Your task to perform on an android device: turn notification dots off Image 0: 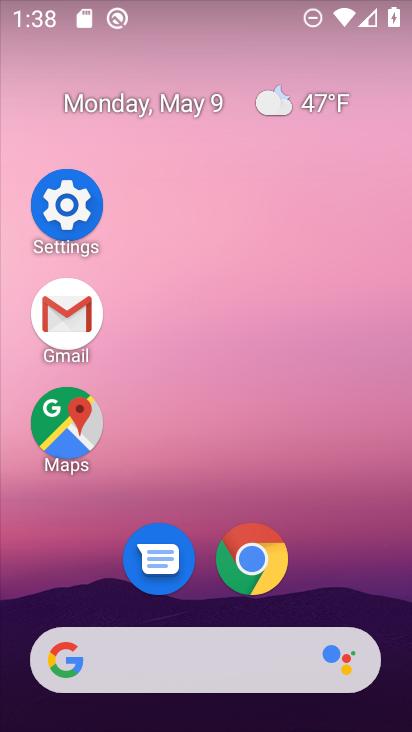
Step 0: click (51, 182)
Your task to perform on an android device: turn notification dots off Image 1: 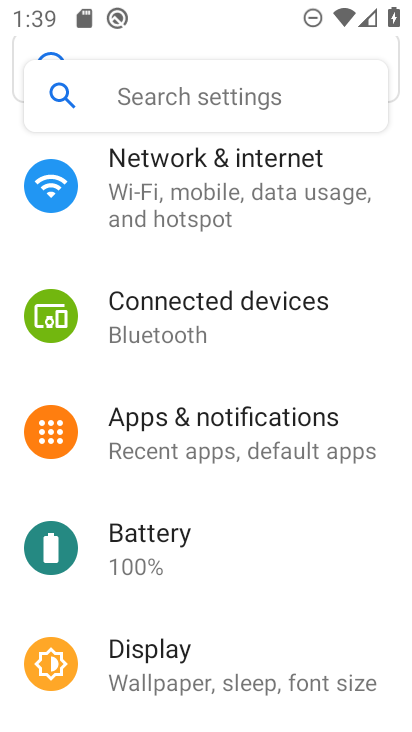
Step 1: click (268, 446)
Your task to perform on an android device: turn notification dots off Image 2: 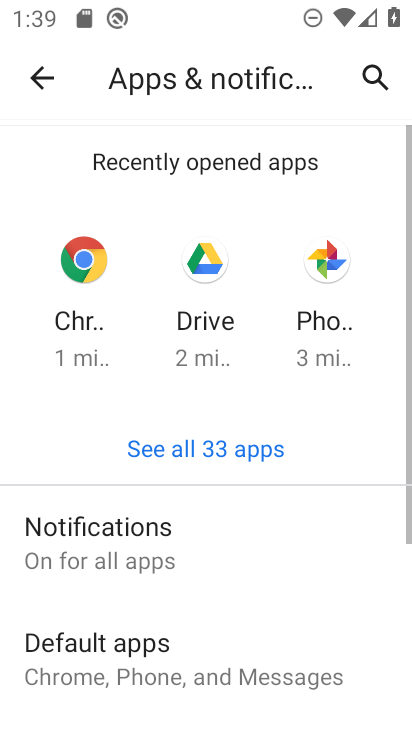
Step 2: click (160, 540)
Your task to perform on an android device: turn notification dots off Image 3: 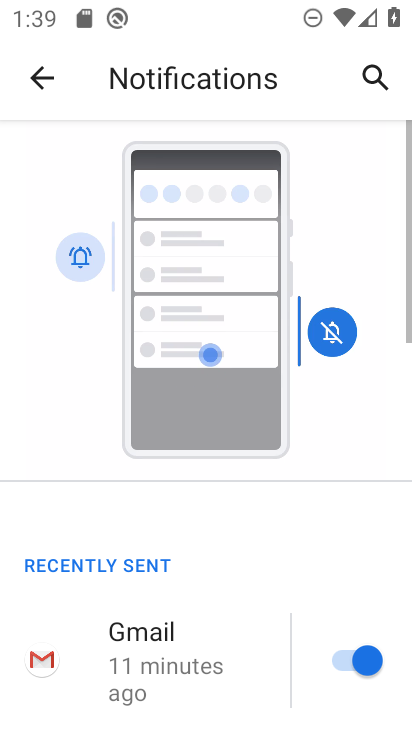
Step 3: drag from (201, 597) to (239, 181)
Your task to perform on an android device: turn notification dots off Image 4: 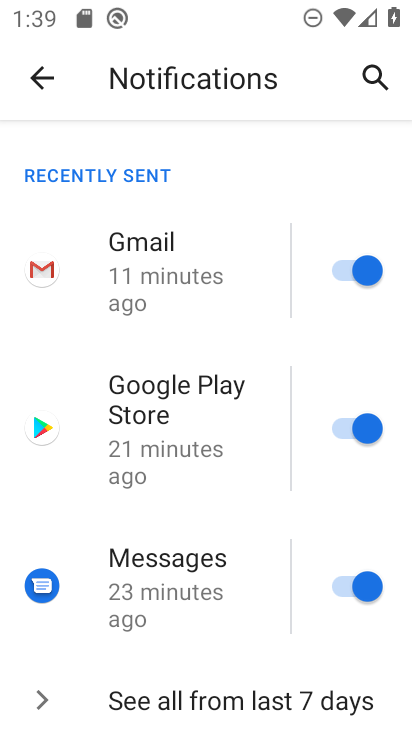
Step 4: drag from (244, 590) to (256, 203)
Your task to perform on an android device: turn notification dots off Image 5: 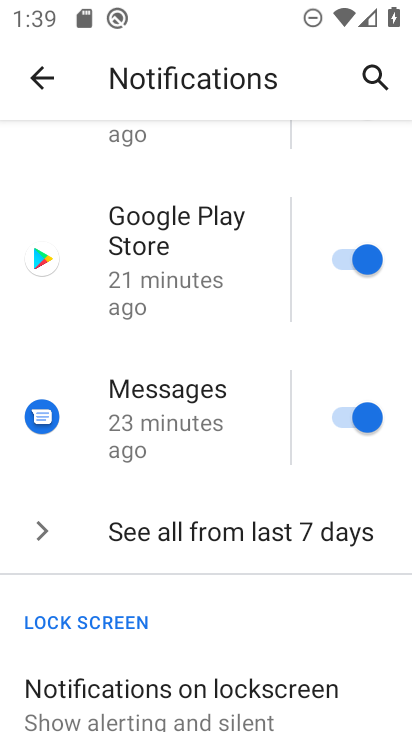
Step 5: drag from (247, 652) to (239, 291)
Your task to perform on an android device: turn notification dots off Image 6: 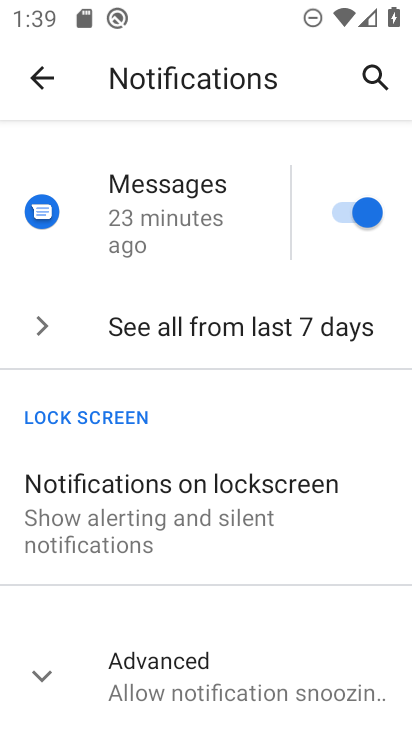
Step 6: click (179, 716)
Your task to perform on an android device: turn notification dots off Image 7: 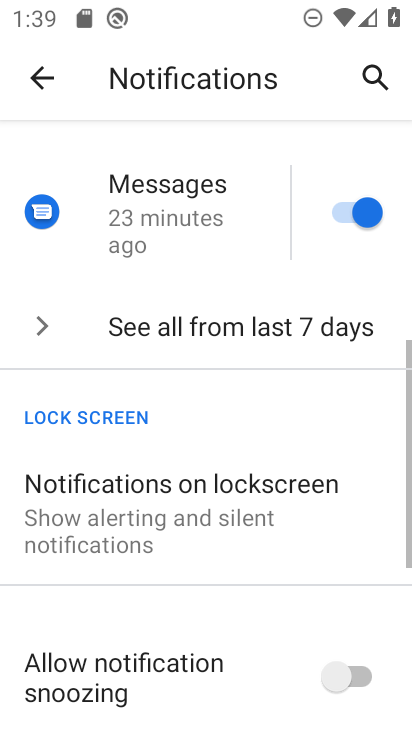
Step 7: drag from (194, 649) to (229, 280)
Your task to perform on an android device: turn notification dots off Image 8: 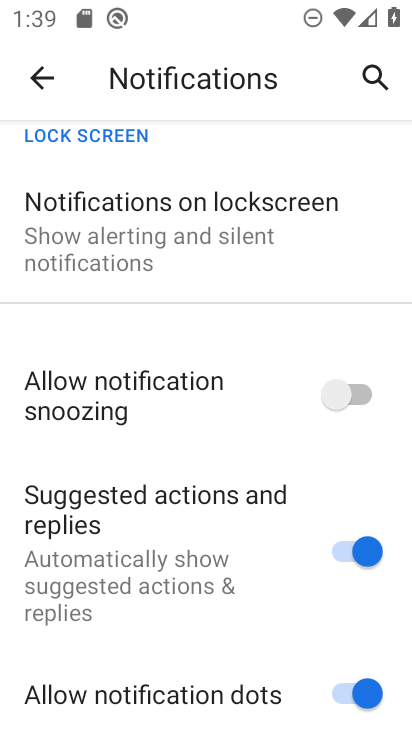
Step 8: drag from (278, 618) to (278, 278)
Your task to perform on an android device: turn notification dots off Image 9: 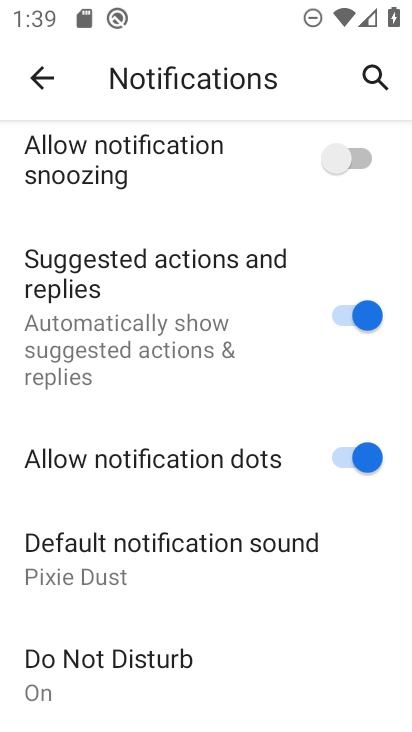
Step 9: click (358, 451)
Your task to perform on an android device: turn notification dots off Image 10: 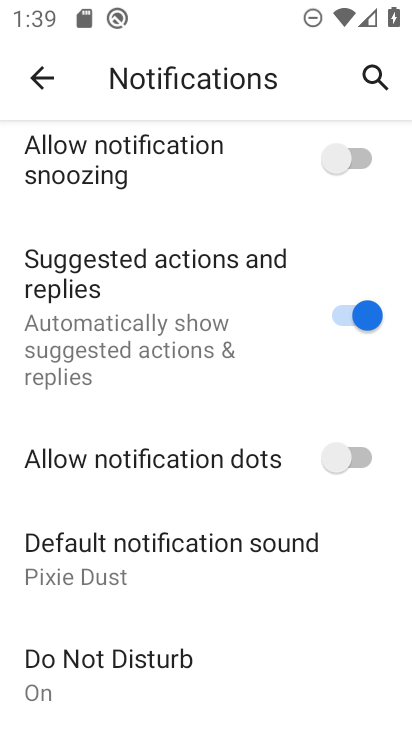
Step 10: task complete